Your task to perform on an android device: Open Google Image 0: 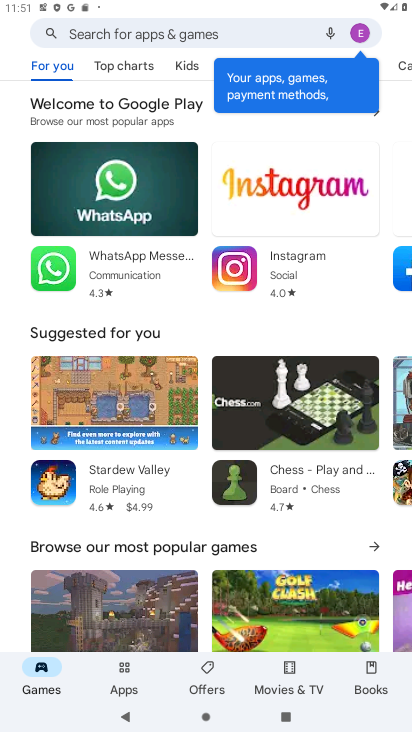
Step 0: press home button
Your task to perform on an android device: Open Google Image 1: 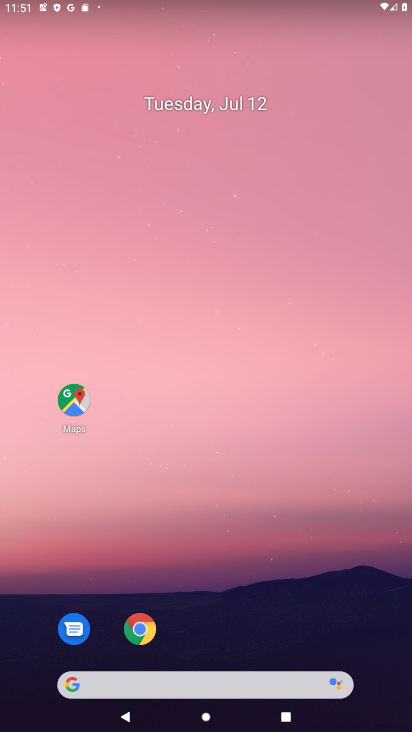
Step 1: drag from (311, 579) to (308, 147)
Your task to perform on an android device: Open Google Image 2: 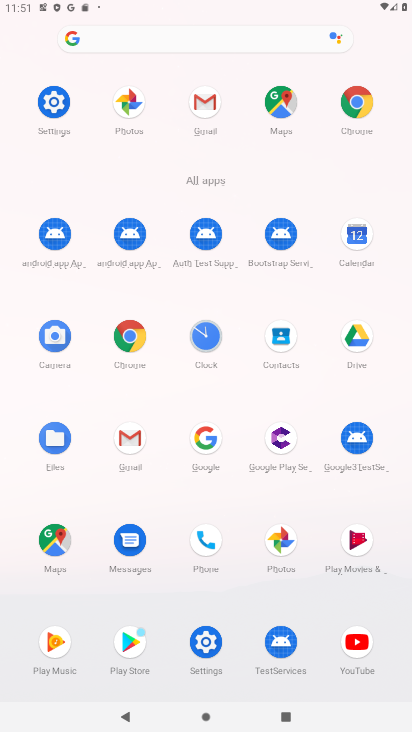
Step 2: click (205, 439)
Your task to perform on an android device: Open Google Image 3: 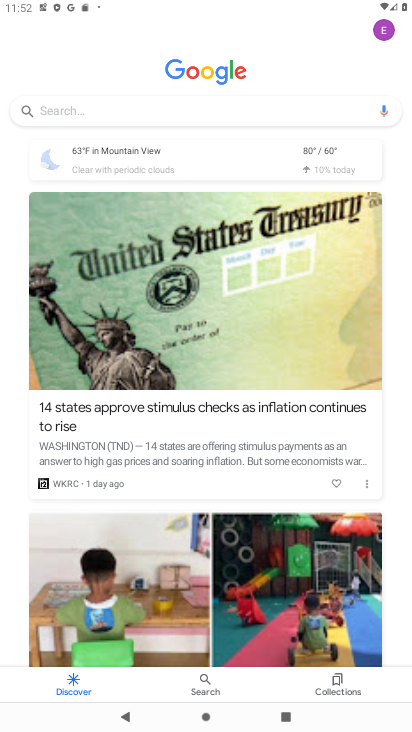
Step 3: task complete